Your task to perform on an android device: turn on bluetooth scan Image 0: 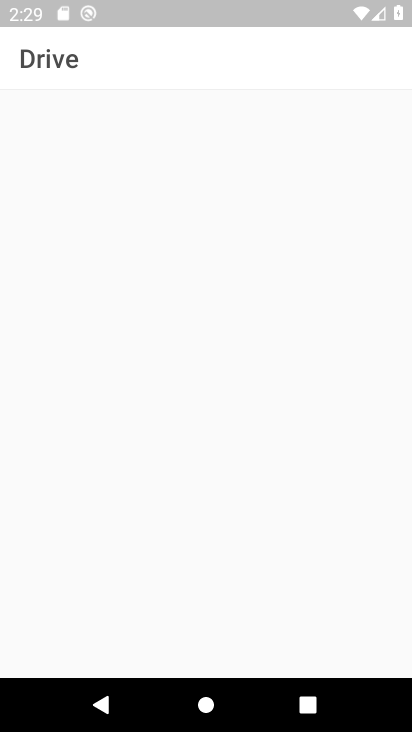
Step 0: press home button
Your task to perform on an android device: turn on bluetooth scan Image 1: 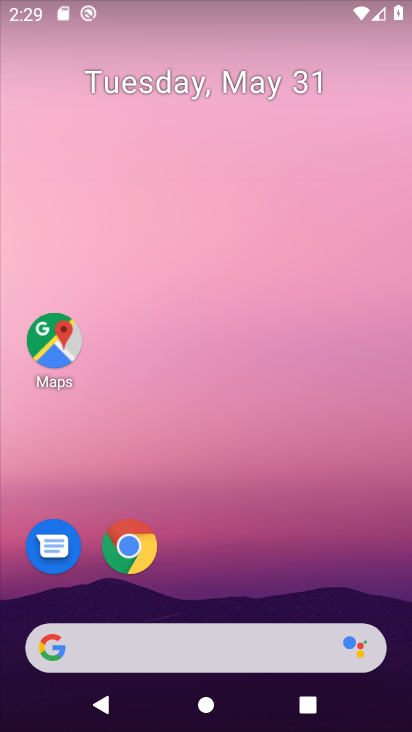
Step 1: drag from (291, 374) to (241, 57)
Your task to perform on an android device: turn on bluetooth scan Image 2: 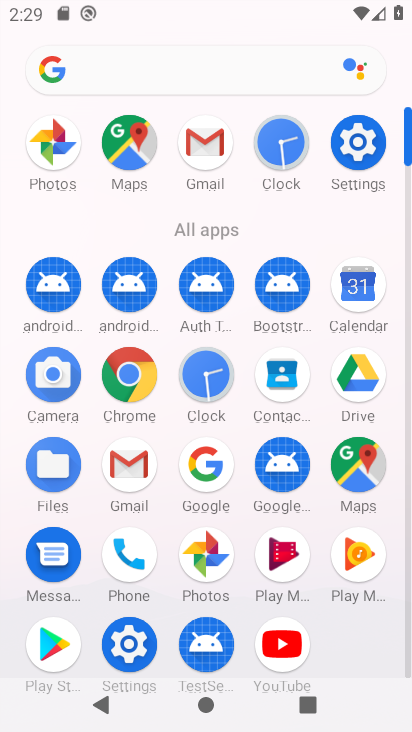
Step 2: click (367, 147)
Your task to perform on an android device: turn on bluetooth scan Image 3: 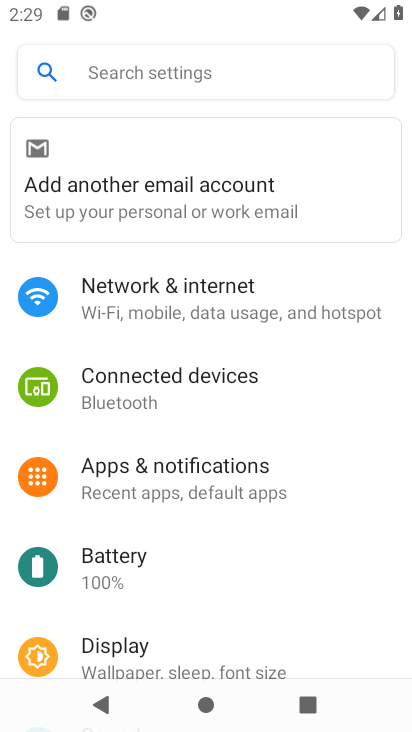
Step 3: drag from (256, 598) to (260, 198)
Your task to perform on an android device: turn on bluetooth scan Image 4: 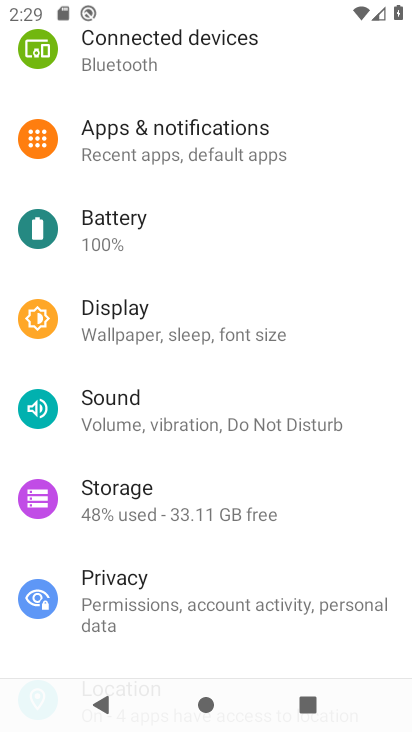
Step 4: drag from (259, 545) to (269, 112)
Your task to perform on an android device: turn on bluetooth scan Image 5: 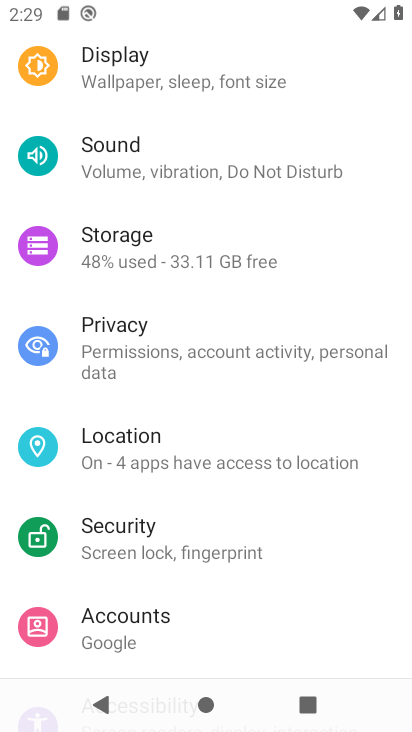
Step 5: click (224, 440)
Your task to perform on an android device: turn on bluetooth scan Image 6: 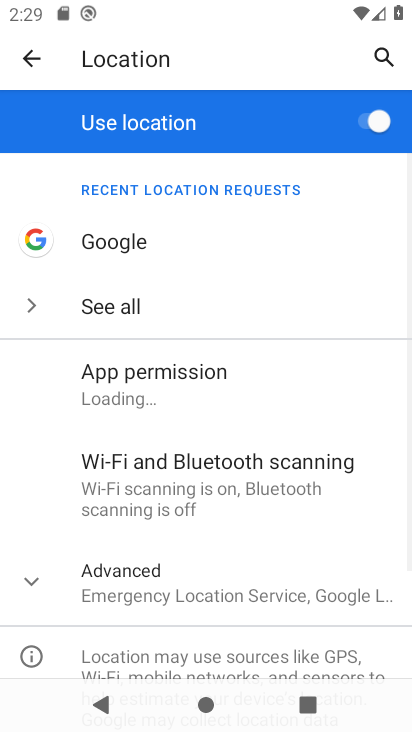
Step 6: drag from (259, 538) to (247, 220)
Your task to perform on an android device: turn on bluetooth scan Image 7: 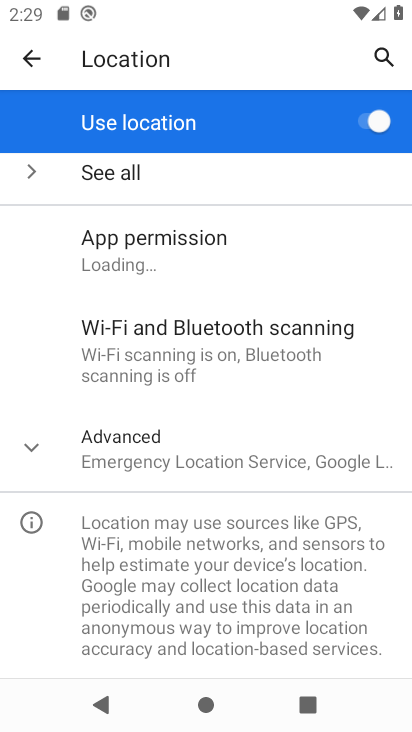
Step 7: click (230, 342)
Your task to perform on an android device: turn on bluetooth scan Image 8: 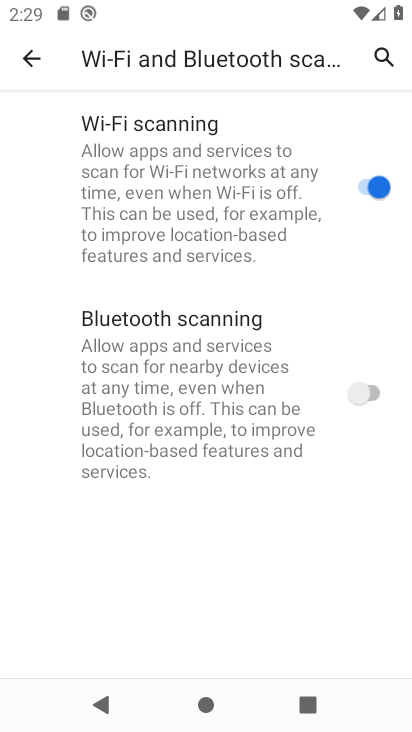
Step 8: click (364, 395)
Your task to perform on an android device: turn on bluetooth scan Image 9: 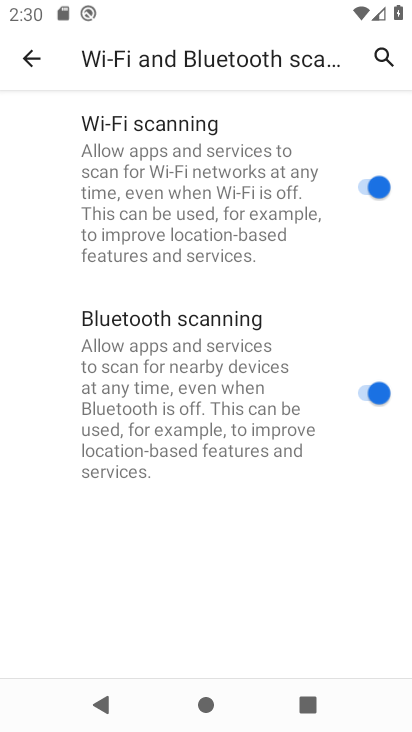
Step 9: task complete